Your task to perform on an android device: show emergency info Image 0: 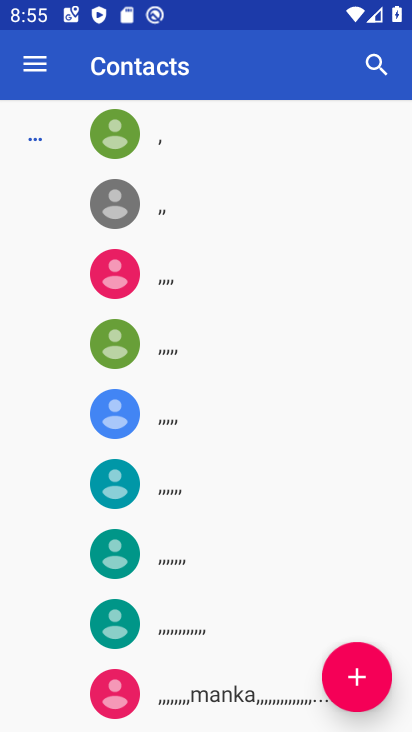
Step 0: press home button
Your task to perform on an android device: show emergency info Image 1: 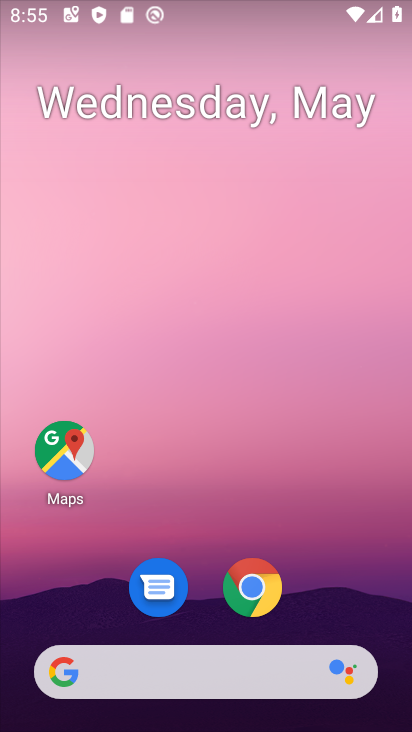
Step 1: drag from (210, 725) to (189, 125)
Your task to perform on an android device: show emergency info Image 2: 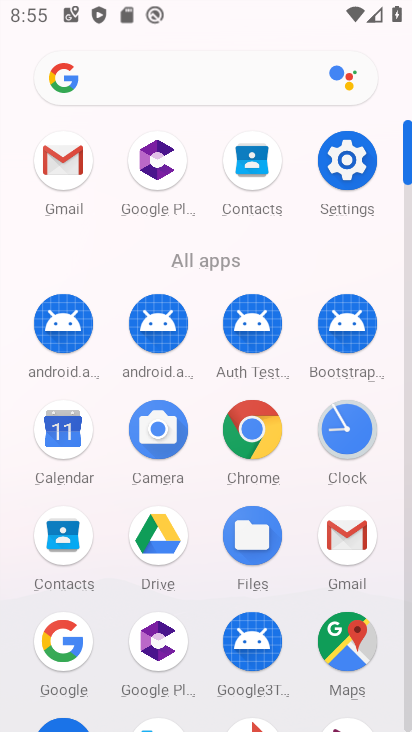
Step 2: click (348, 161)
Your task to perform on an android device: show emergency info Image 3: 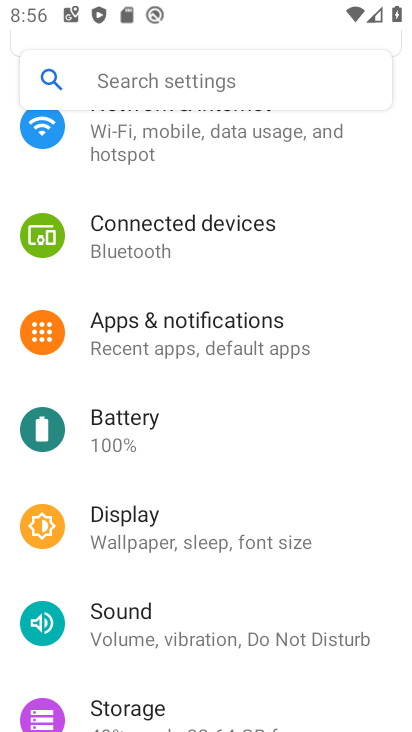
Step 3: drag from (225, 683) to (228, 339)
Your task to perform on an android device: show emergency info Image 4: 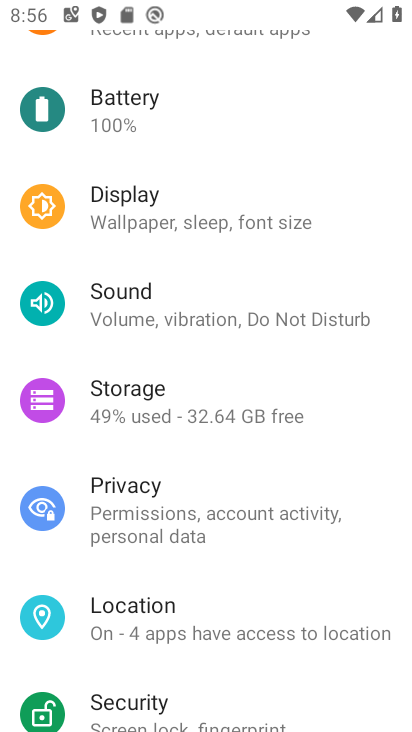
Step 4: drag from (225, 686) to (227, 265)
Your task to perform on an android device: show emergency info Image 5: 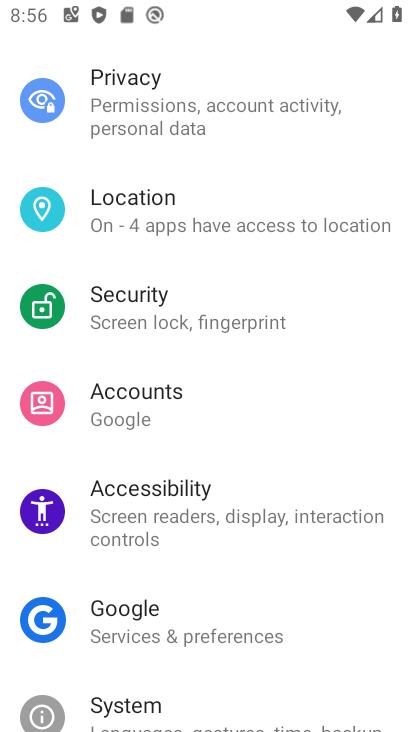
Step 5: drag from (205, 681) to (205, 197)
Your task to perform on an android device: show emergency info Image 6: 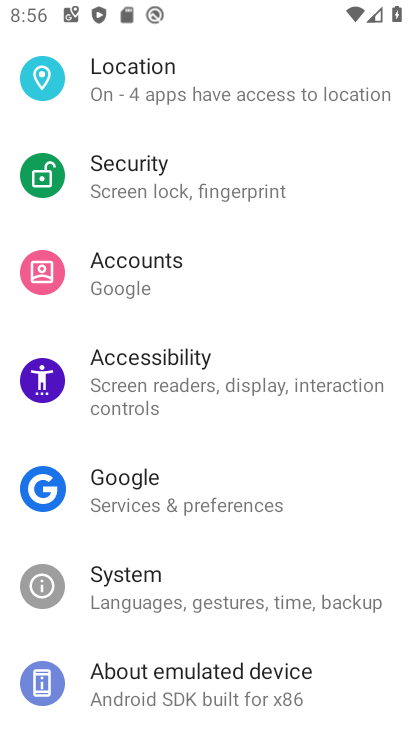
Step 6: click (198, 680)
Your task to perform on an android device: show emergency info Image 7: 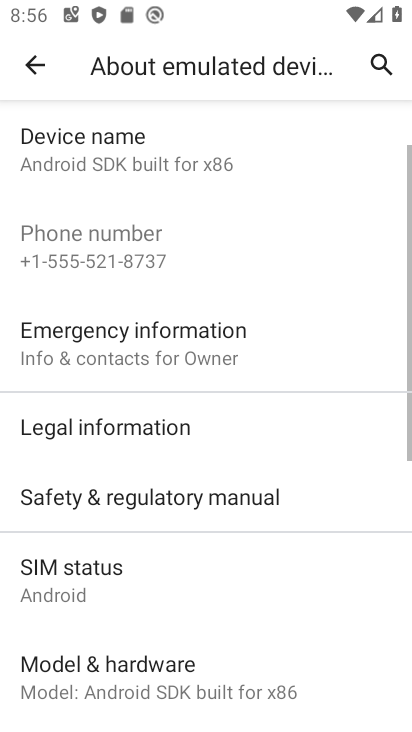
Step 7: click (145, 331)
Your task to perform on an android device: show emergency info Image 8: 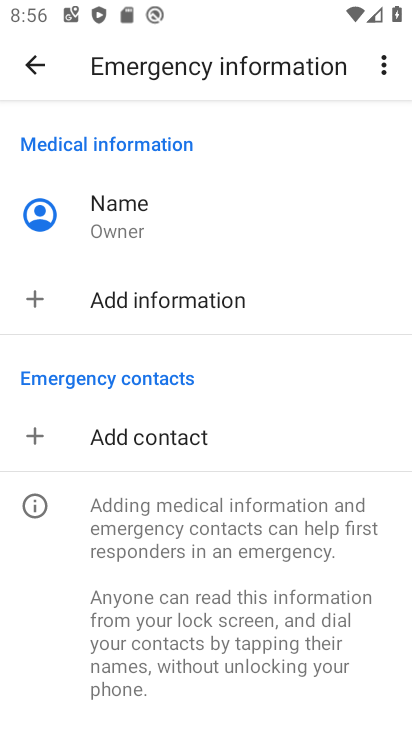
Step 8: task complete